Your task to perform on an android device: Go to CNN.com Image 0: 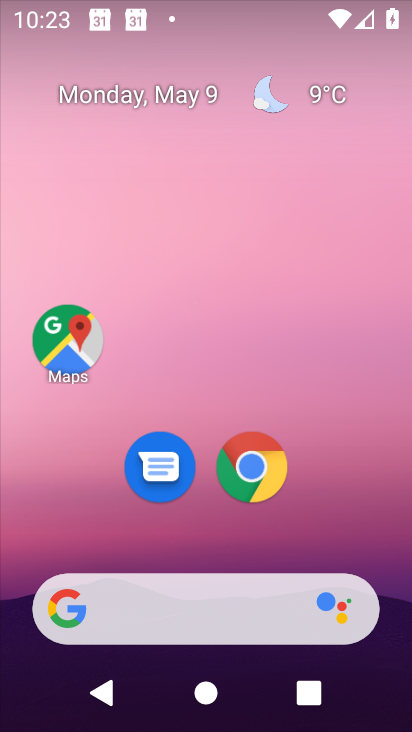
Step 0: click (255, 465)
Your task to perform on an android device: Go to CNN.com Image 1: 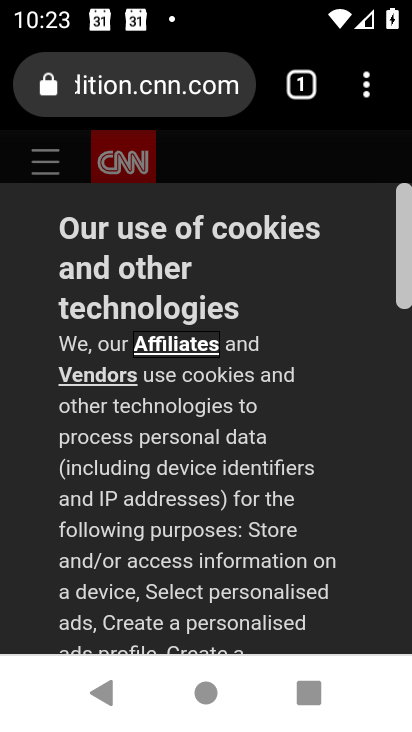
Step 1: task complete